Your task to perform on an android device: find which apps use the phone's location Image 0: 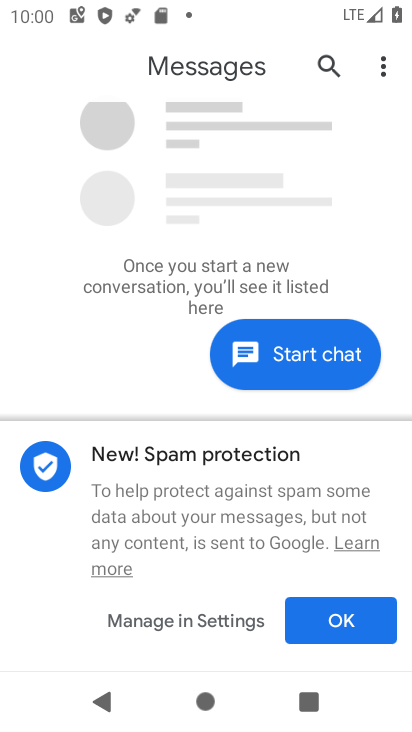
Step 0: press home button
Your task to perform on an android device: find which apps use the phone's location Image 1: 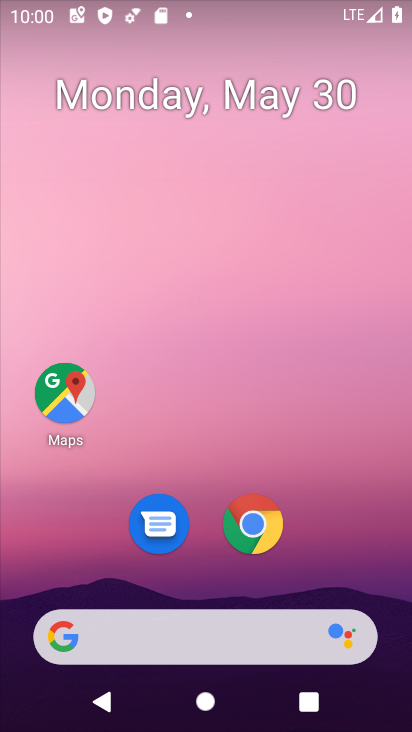
Step 1: drag from (317, 487) to (269, 9)
Your task to perform on an android device: find which apps use the phone's location Image 2: 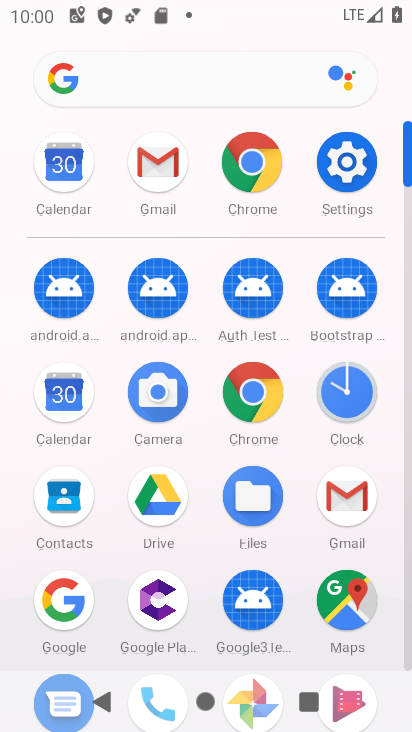
Step 2: click (336, 161)
Your task to perform on an android device: find which apps use the phone's location Image 3: 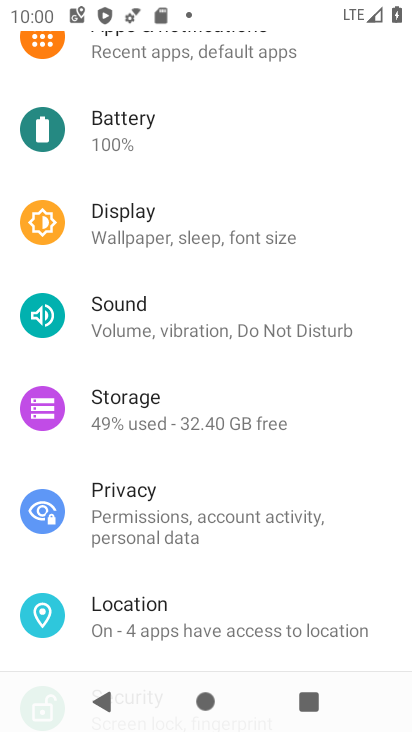
Step 3: click (264, 634)
Your task to perform on an android device: find which apps use the phone's location Image 4: 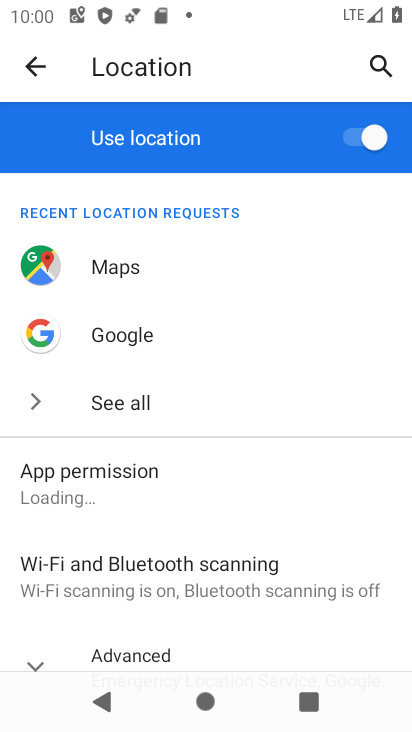
Step 4: click (173, 487)
Your task to perform on an android device: find which apps use the phone's location Image 5: 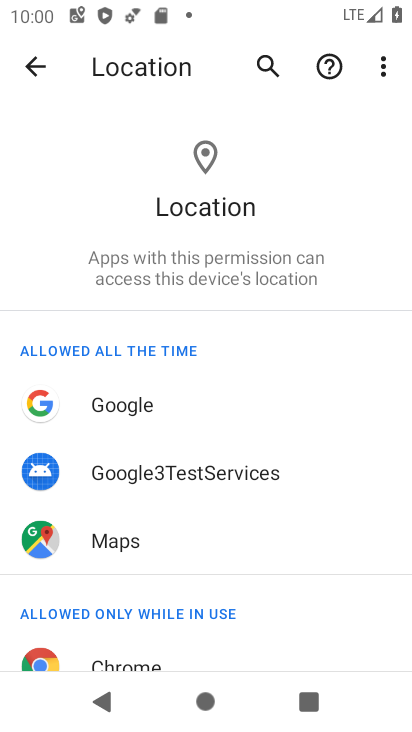
Step 5: task complete